Your task to perform on an android device: clear history in the chrome app Image 0: 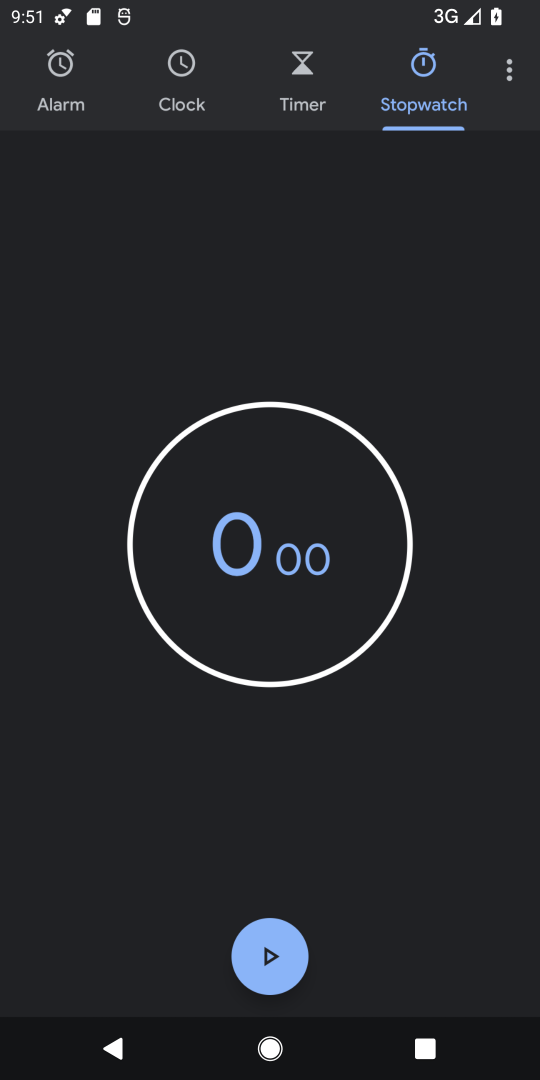
Step 0: press home button
Your task to perform on an android device: clear history in the chrome app Image 1: 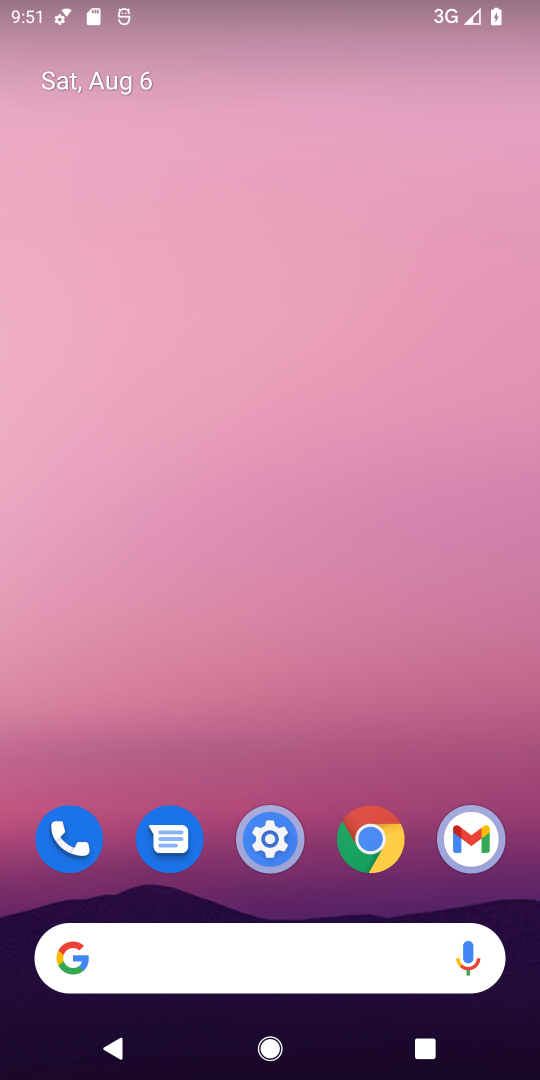
Step 1: click (372, 825)
Your task to perform on an android device: clear history in the chrome app Image 2: 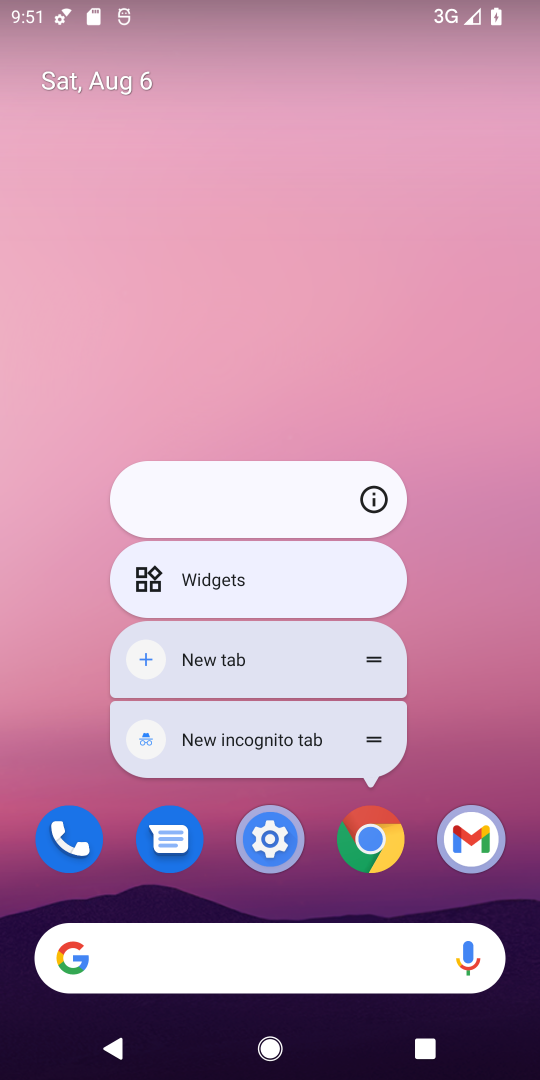
Step 2: click (372, 825)
Your task to perform on an android device: clear history in the chrome app Image 3: 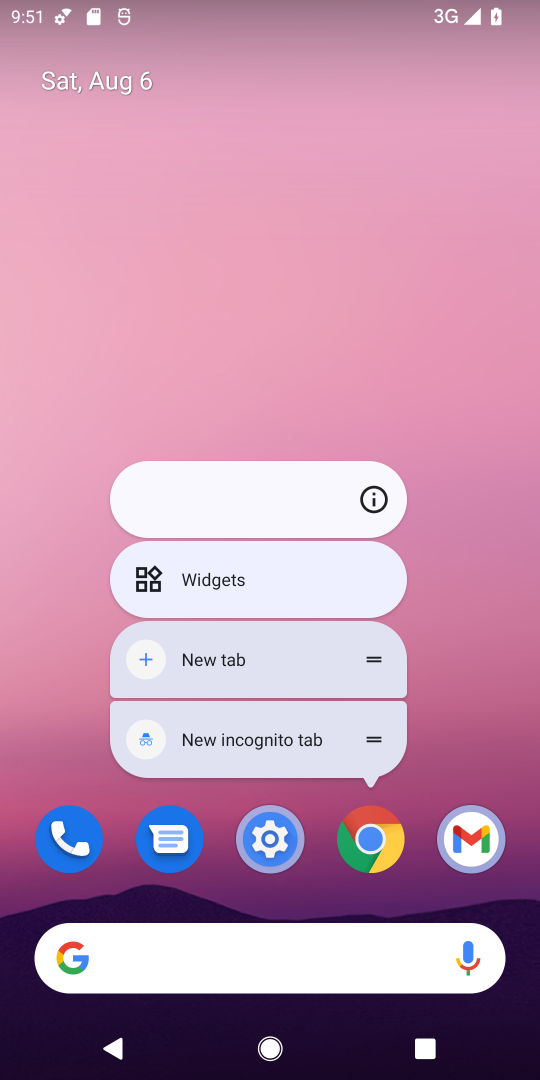
Step 3: click (376, 839)
Your task to perform on an android device: clear history in the chrome app Image 4: 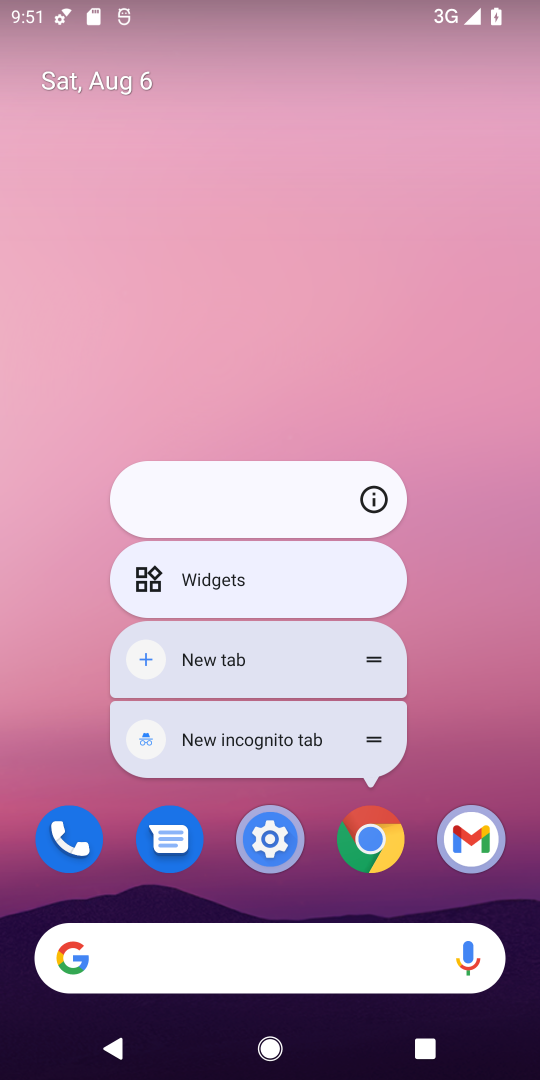
Step 4: click (376, 839)
Your task to perform on an android device: clear history in the chrome app Image 5: 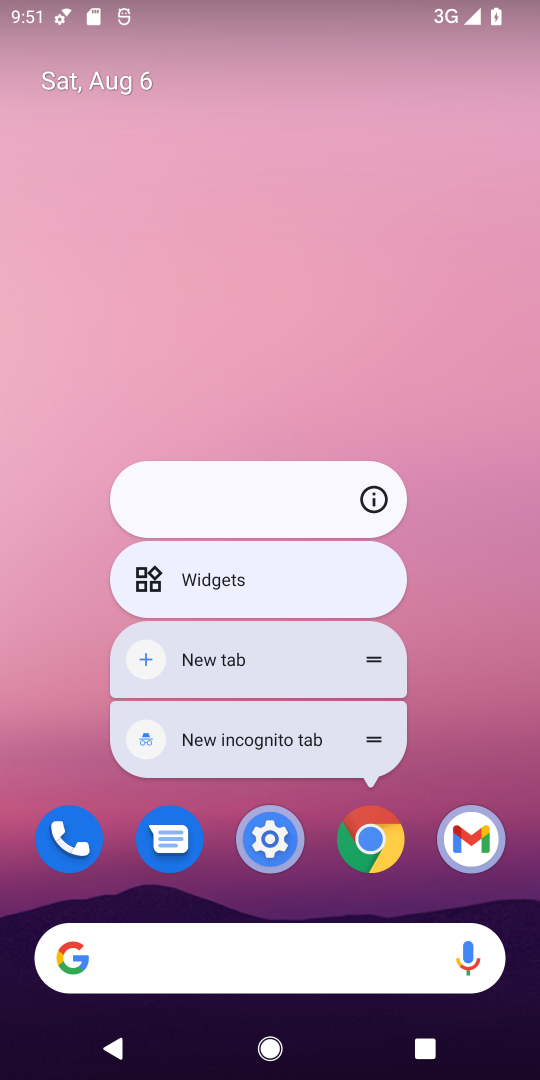
Step 5: drag from (428, 782) to (490, 10)
Your task to perform on an android device: clear history in the chrome app Image 6: 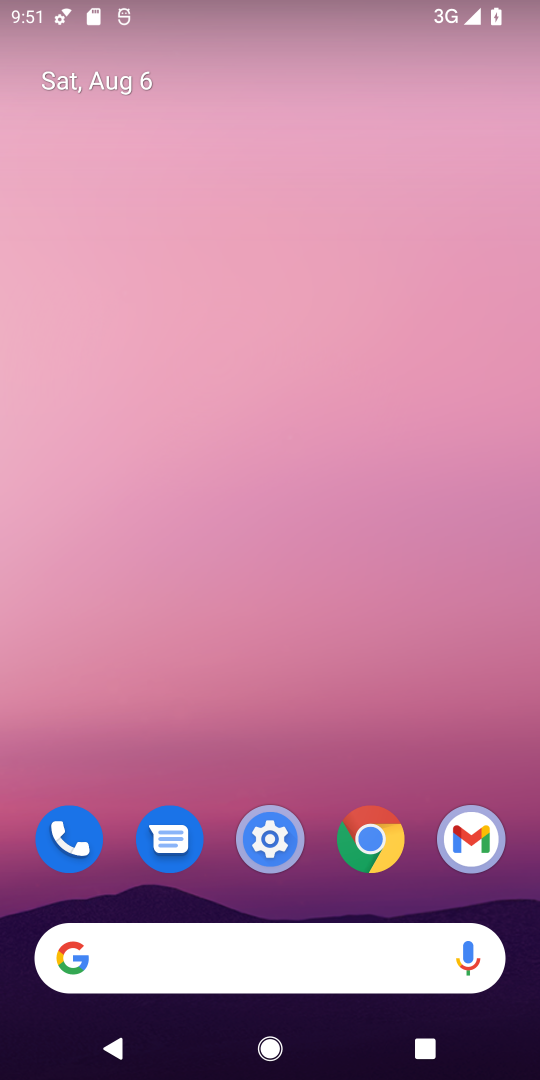
Step 6: drag from (408, 679) to (404, 34)
Your task to perform on an android device: clear history in the chrome app Image 7: 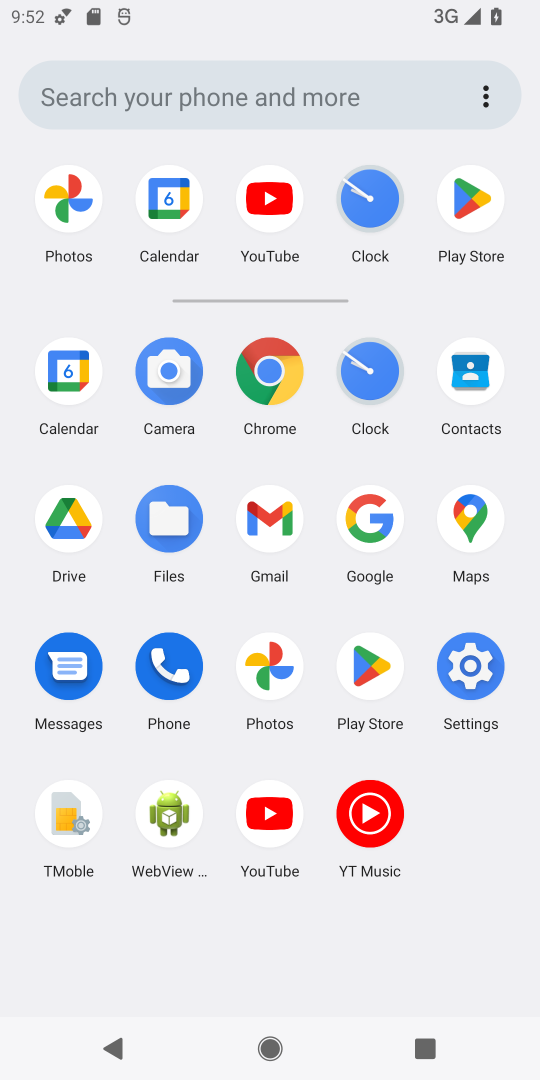
Step 7: click (261, 385)
Your task to perform on an android device: clear history in the chrome app Image 8: 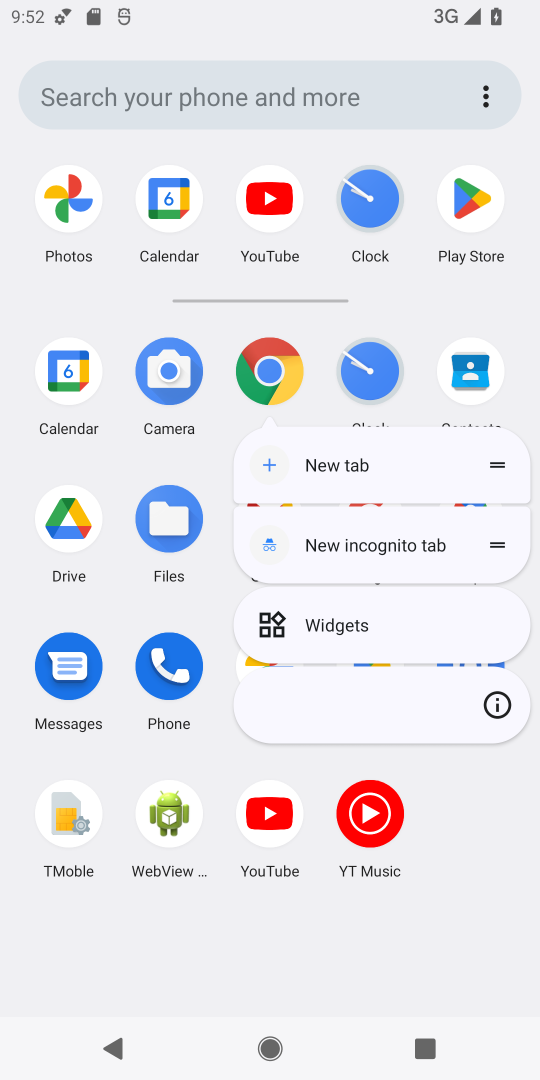
Step 8: click (256, 373)
Your task to perform on an android device: clear history in the chrome app Image 9: 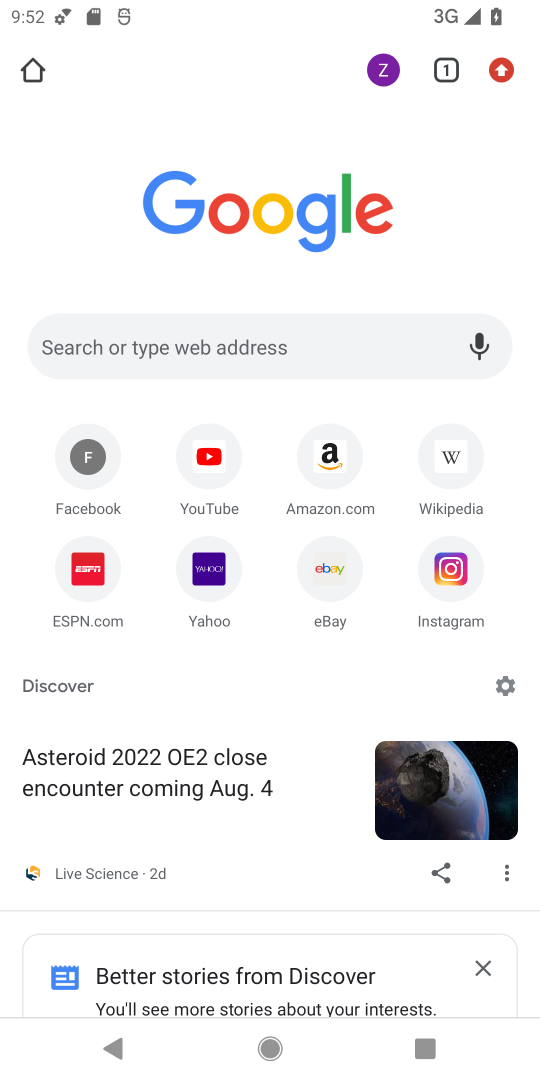
Step 9: click (490, 60)
Your task to perform on an android device: clear history in the chrome app Image 10: 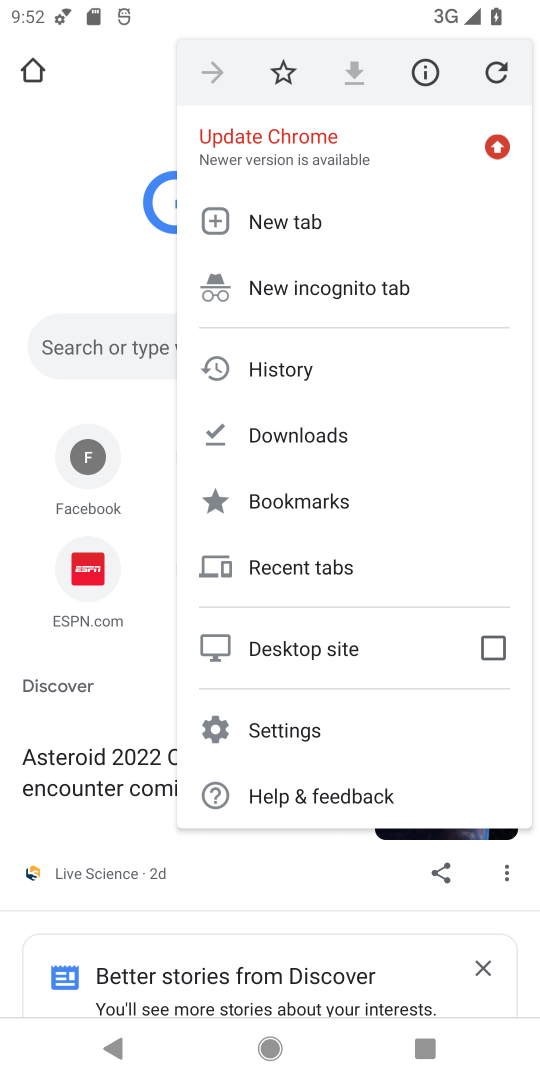
Step 10: click (334, 365)
Your task to perform on an android device: clear history in the chrome app Image 11: 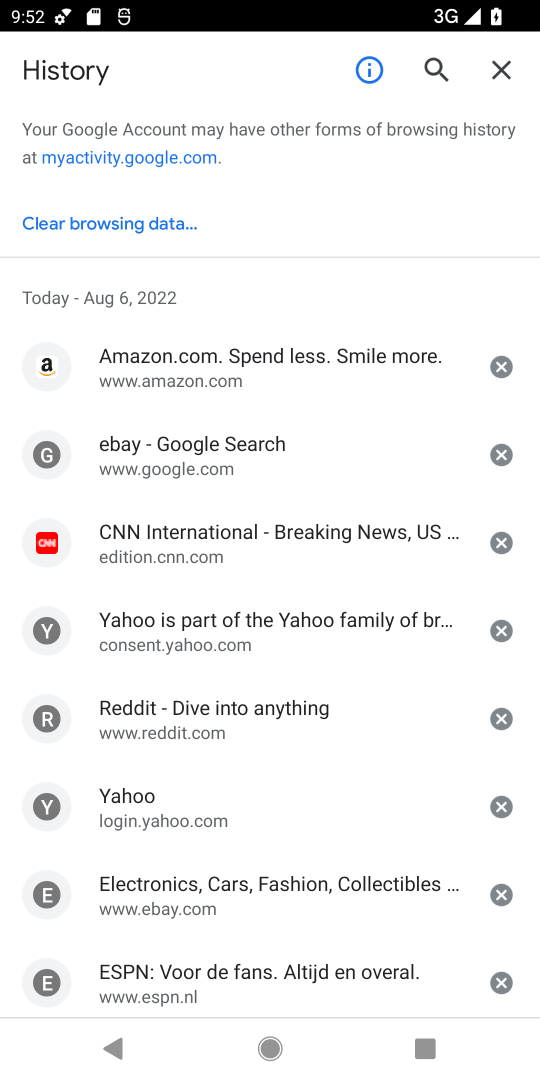
Step 11: click (117, 221)
Your task to perform on an android device: clear history in the chrome app Image 12: 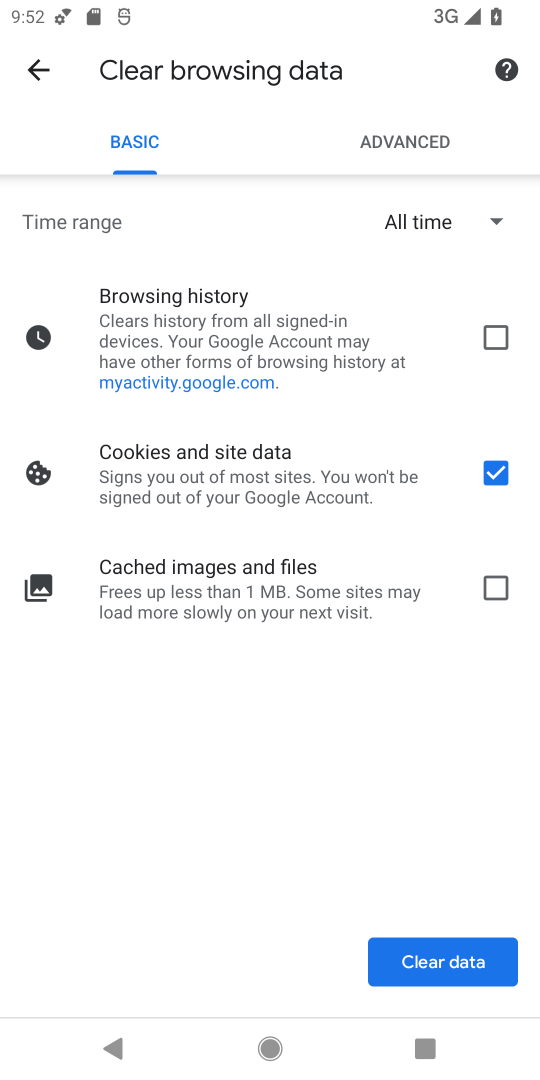
Step 12: click (492, 332)
Your task to perform on an android device: clear history in the chrome app Image 13: 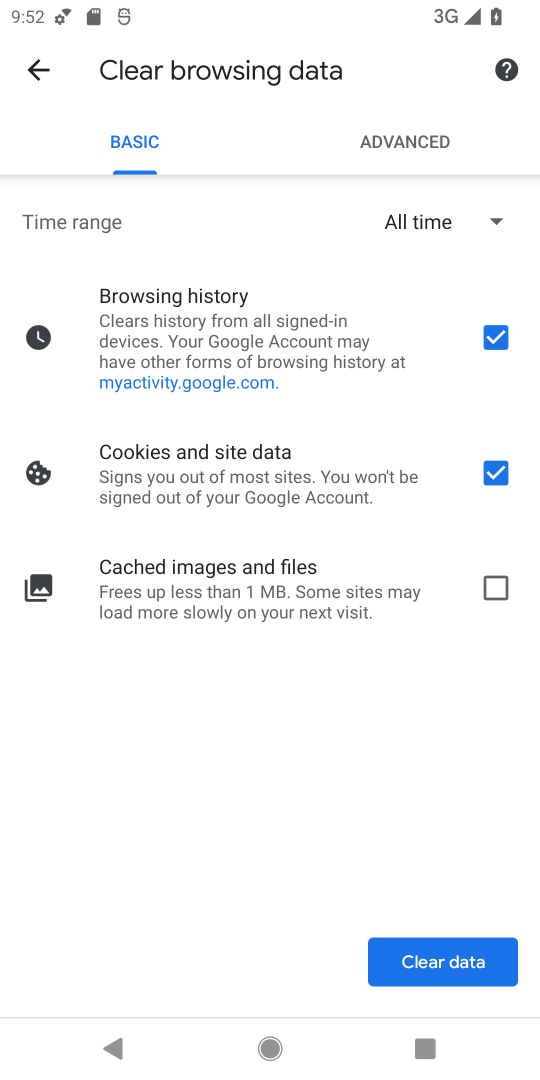
Step 13: click (496, 569)
Your task to perform on an android device: clear history in the chrome app Image 14: 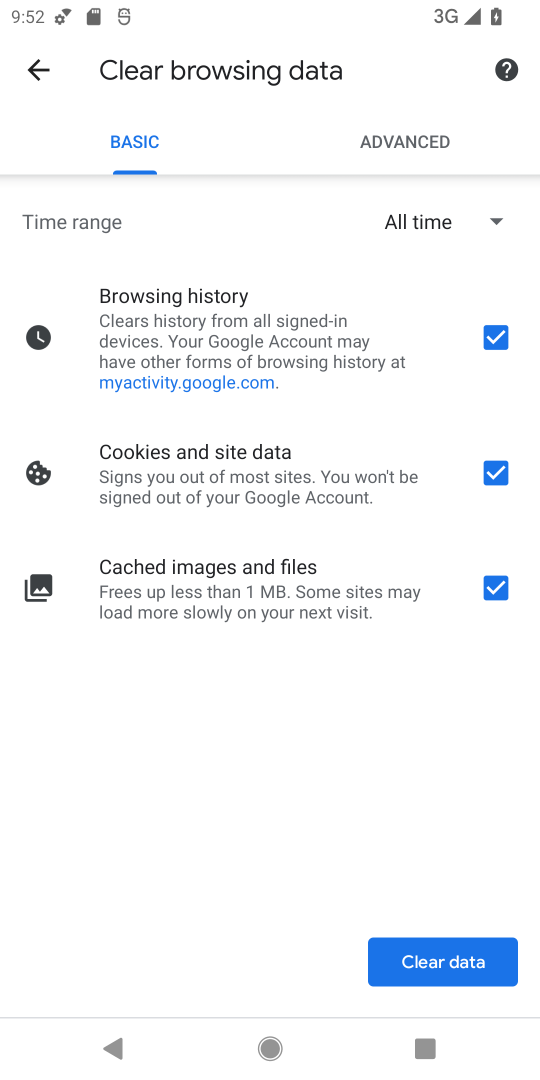
Step 14: click (447, 969)
Your task to perform on an android device: clear history in the chrome app Image 15: 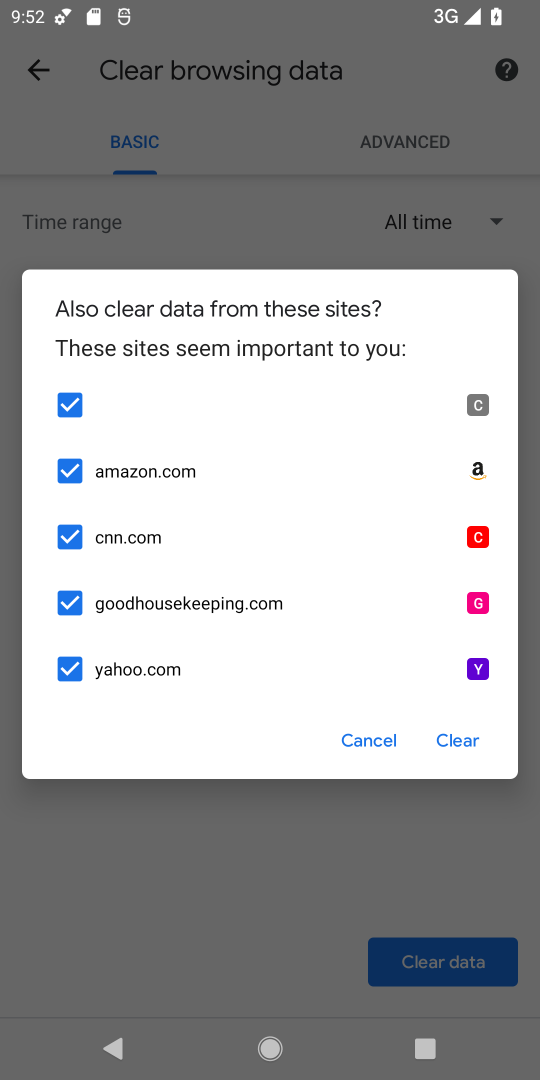
Step 15: click (466, 745)
Your task to perform on an android device: clear history in the chrome app Image 16: 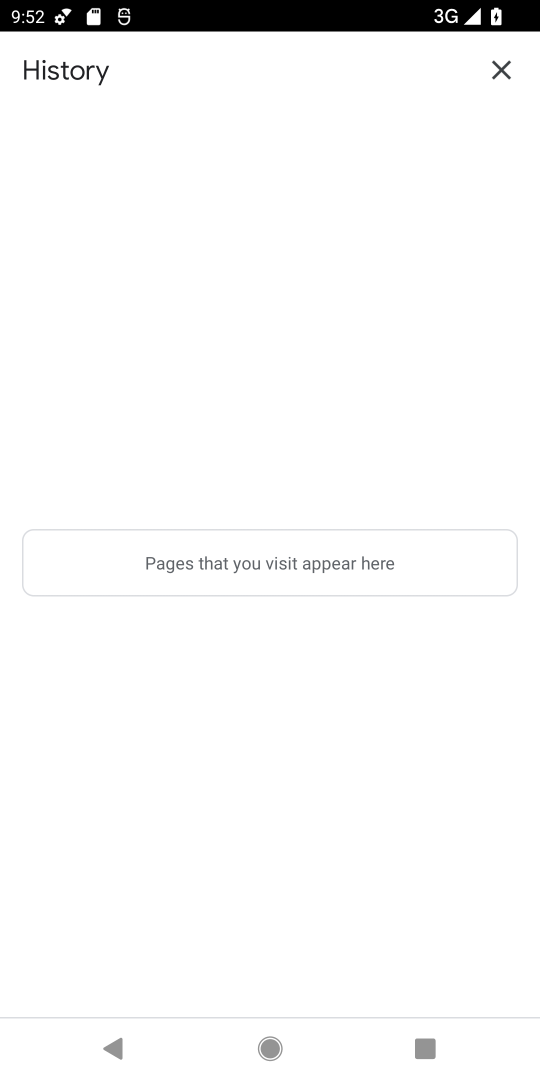
Step 16: task complete